Your task to perform on an android device: What's the weather today? Image 0: 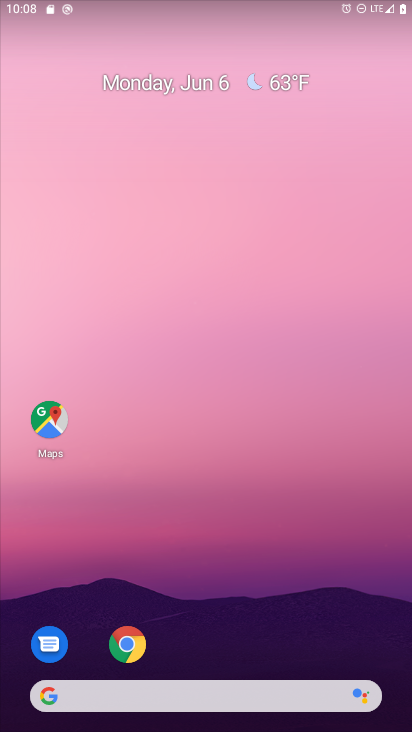
Step 0: drag from (227, 723) to (139, 196)
Your task to perform on an android device: What's the weather today? Image 1: 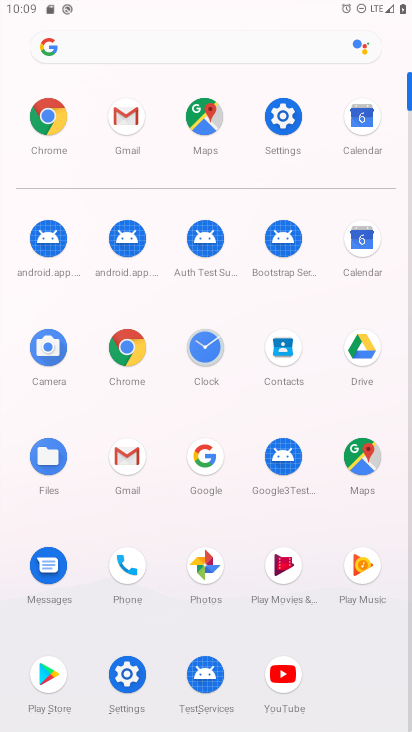
Step 1: click (193, 60)
Your task to perform on an android device: What's the weather today? Image 2: 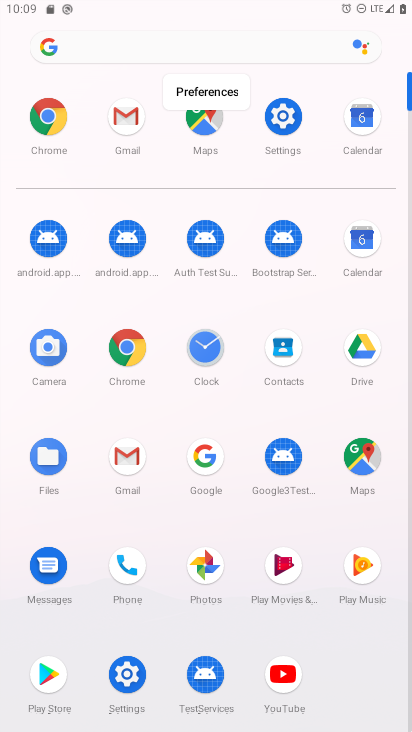
Step 2: click (120, 44)
Your task to perform on an android device: What's the weather today? Image 3: 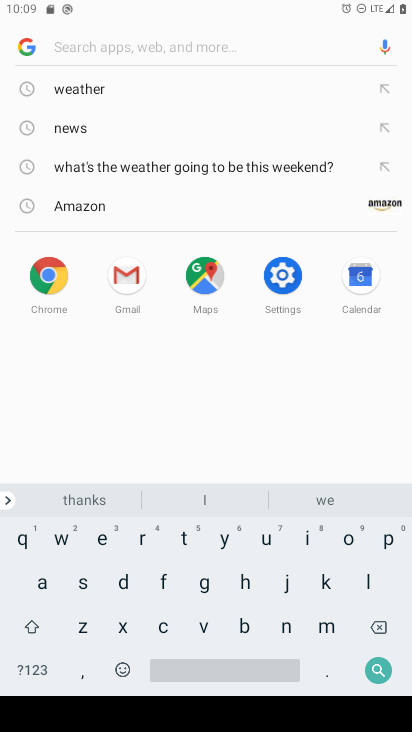
Step 3: click (104, 89)
Your task to perform on an android device: What's the weather today? Image 4: 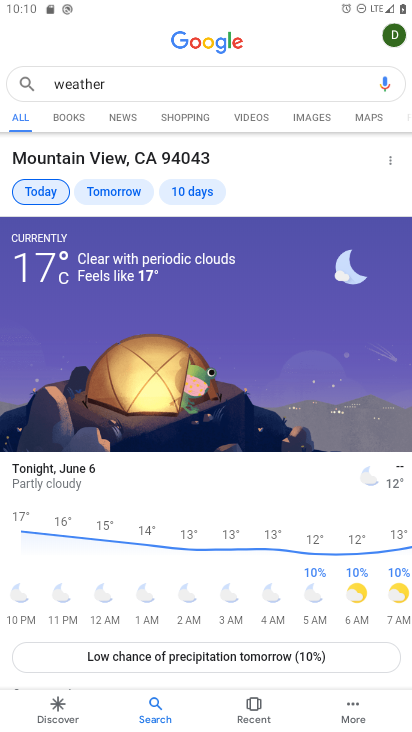
Step 4: task complete